Your task to perform on an android device: Open Maps and search for coffee Image 0: 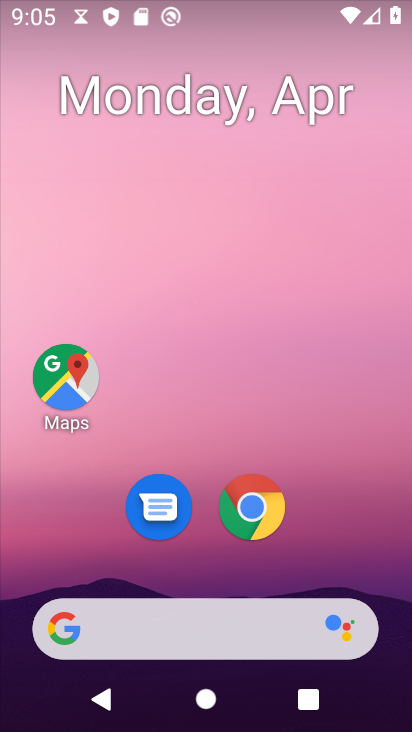
Step 0: drag from (326, 495) to (332, 82)
Your task to perform on an android device: Open Maps and search for coffee Image 1: 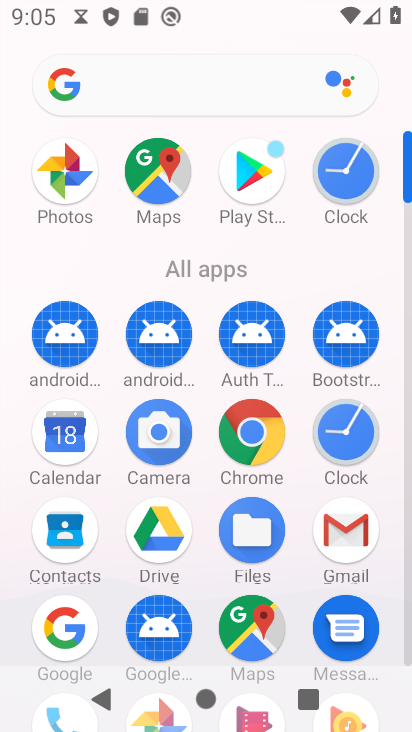
Step 1: click (148, 160)
Your task to perform on an android device: Open Maps and search for coffee Image 2: 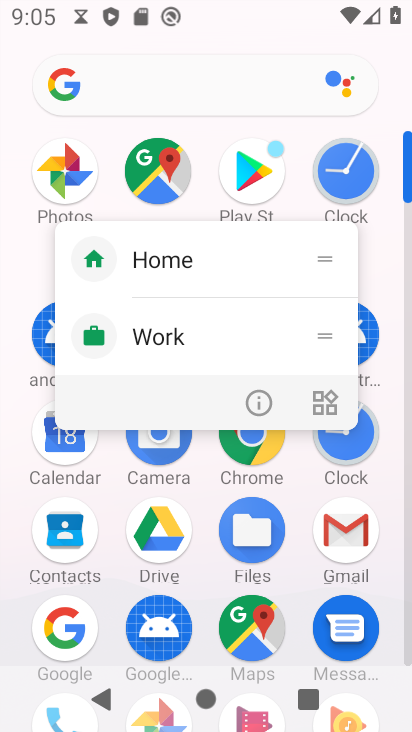
Step 2: click (150, 160)
Your task to perform on an android device: Open Maps and search for coffee Image 3: 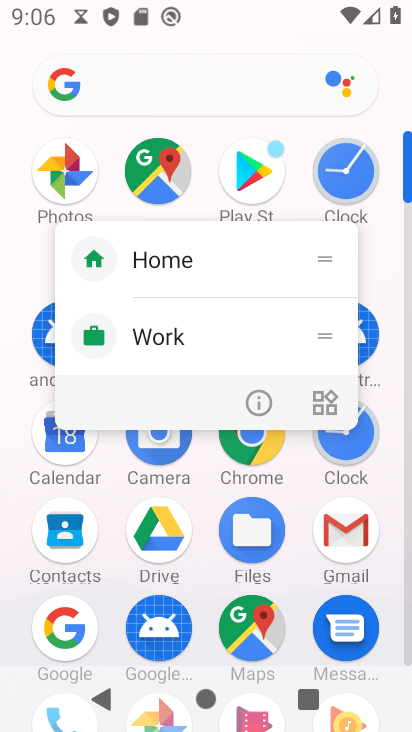
Step 3: click (150, 160)
Your task to perform on an android device: Open Maps and search for coffee Image 4: 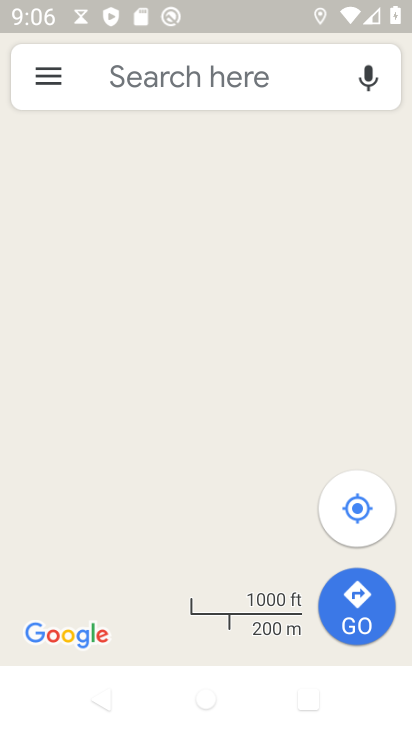
Step 4: click (136, 70)
Your task to perform on an android device: Open Maps and search for coffee Image 5: 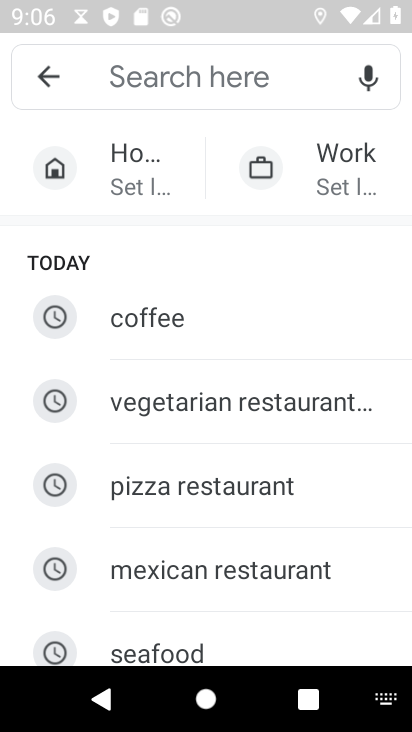
Step 5: type "coffee"
Your task to perform on an android device: Open Maps and search for coffee Image 6: 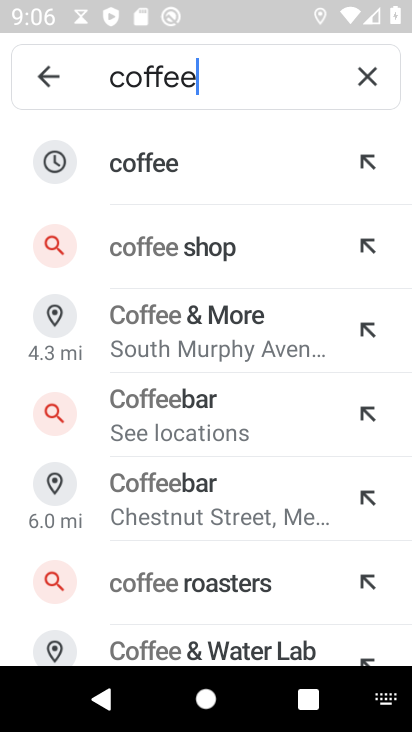
Step 6: click (160, 176)
Your task to perform on an android device: Open Maps and search for coffee Image 7: 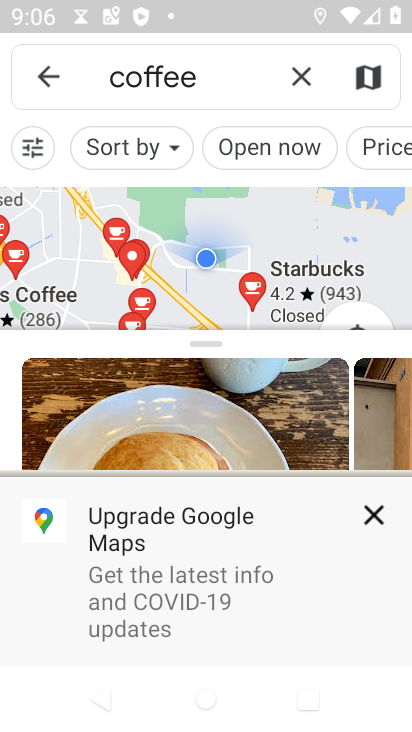
Step 7: task complete